Your task to perform on an android device: Open Youtube and go to the subscriptions tab Image 0: 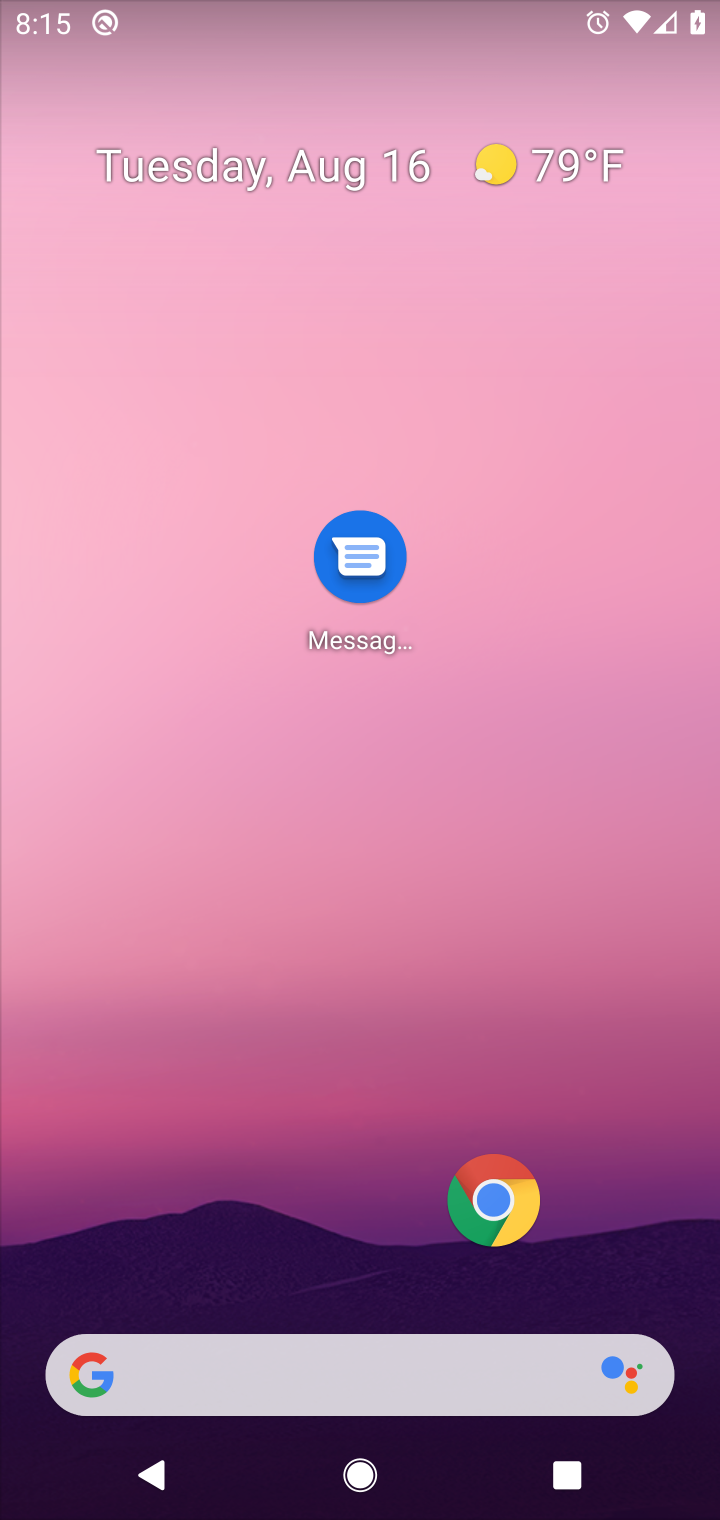
Step 0: press home button
Your task to perform on an android device: Open Youtube and go to the subscriptions tab Image 1: 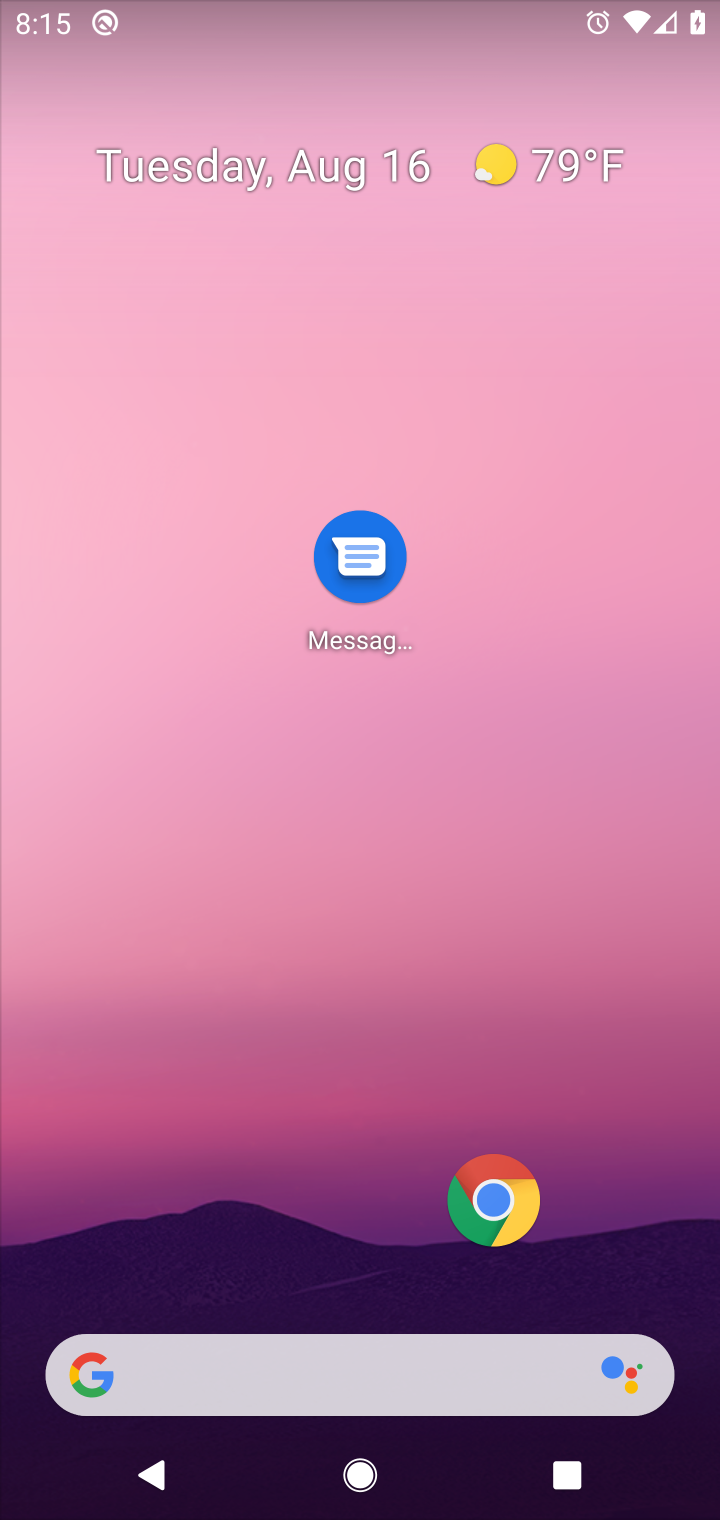
Step 1: drag from (46, 1489) to (293, 599)
Your task to perform on an android device: Open Youtube and go to the subscriptions tab Image 2: 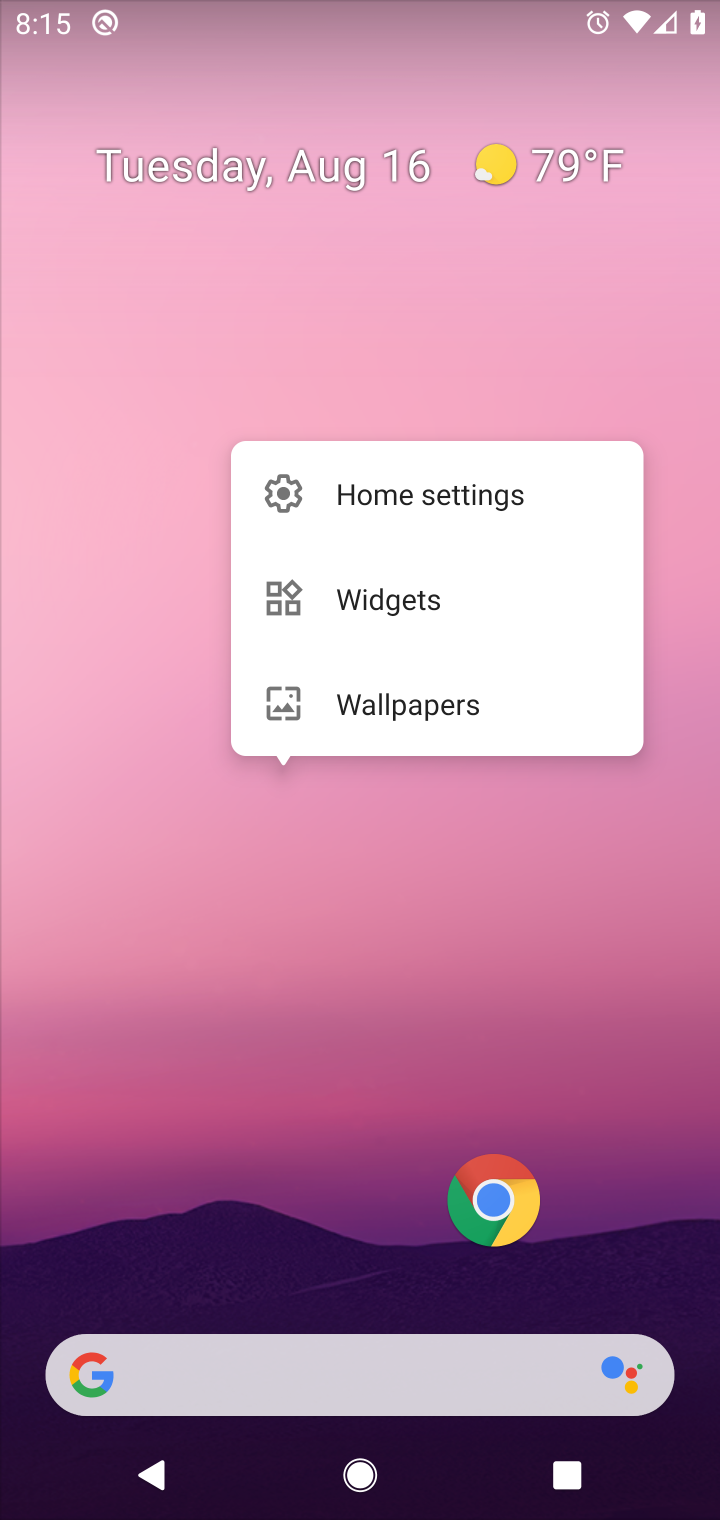
Step 2: drag from (67, 1470) to (156, 604)
Your task to perform on an android device: Open Youtube and go to the subscriptions tab Image 3: 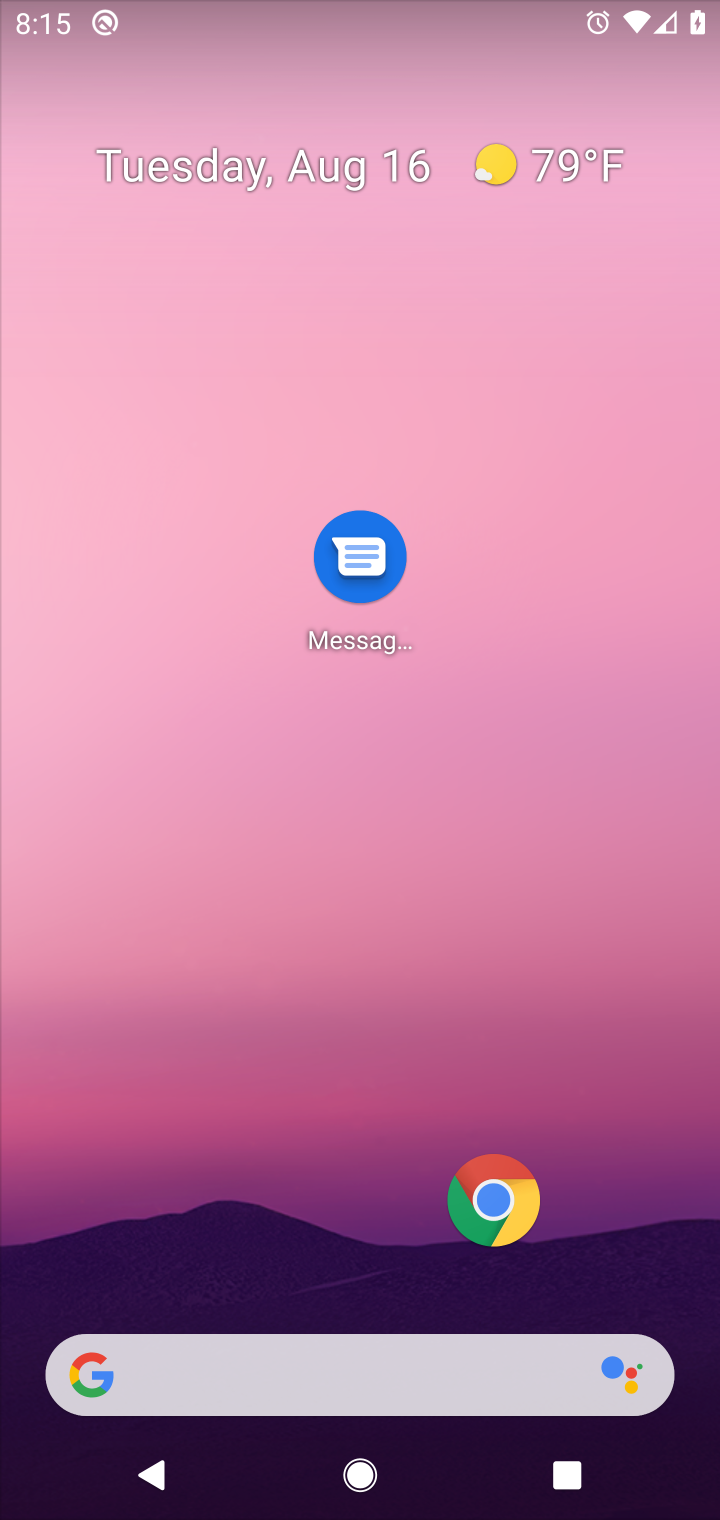
Step 3: drag from (426, 961) to (586, 608)
Your task to perform on an android device: Open Youtube and go to the subscriptions tab Image 4: 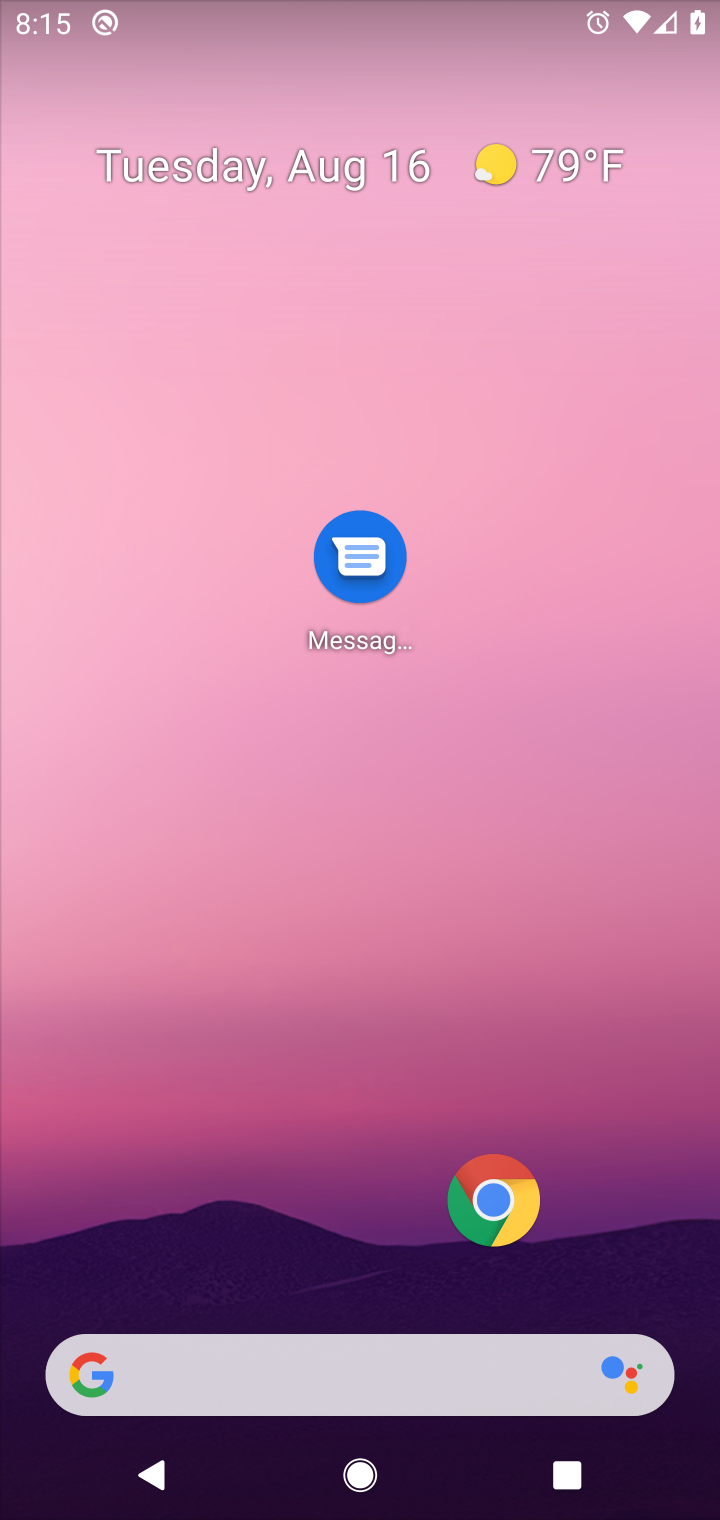
Step 4: drag from (76, 1448) to (230, 424)
Your task to perform on an android device: Open Youtube and go to the subscriptions tab Image 5: 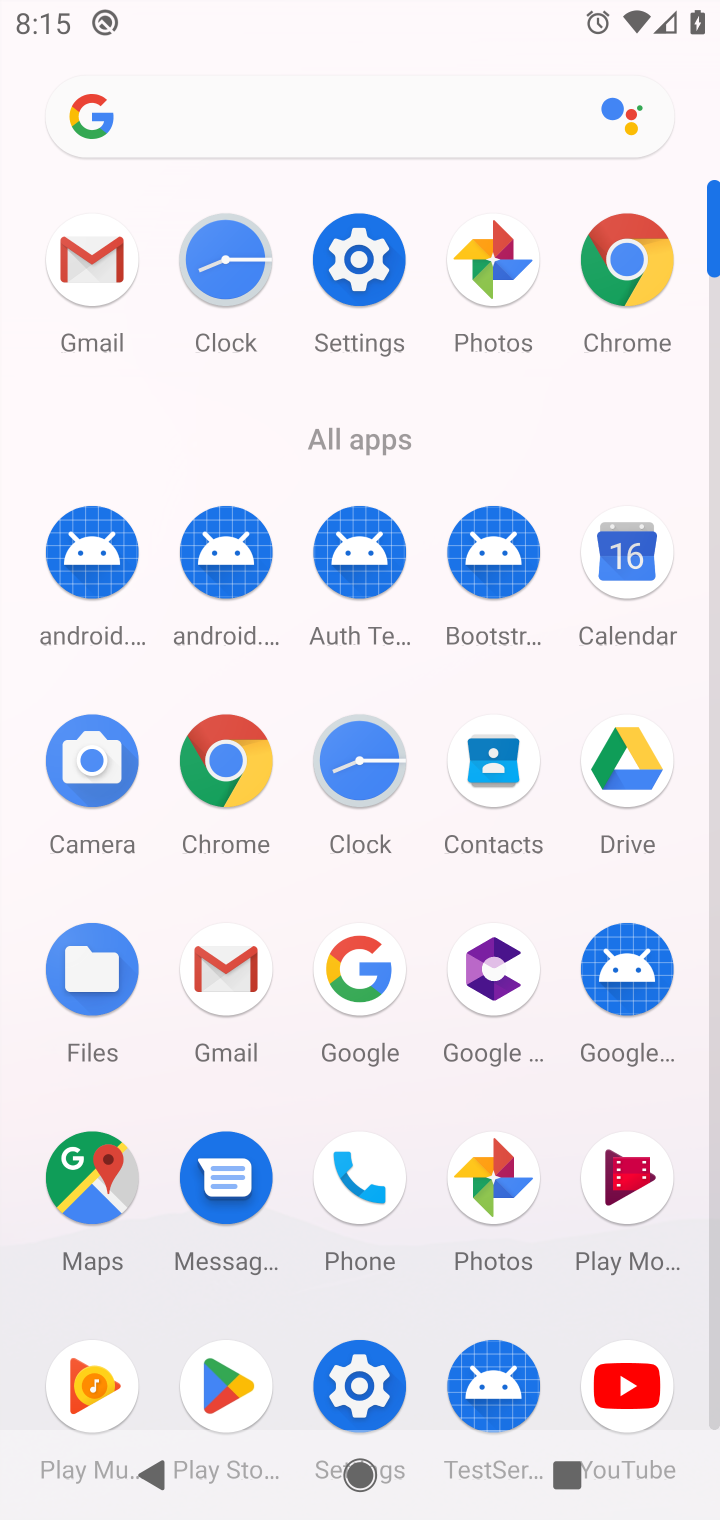
Step 5: click (610, 1371)
Your task to perform on an android device: Open Youtube and go to the subscriptions tab Image 6: 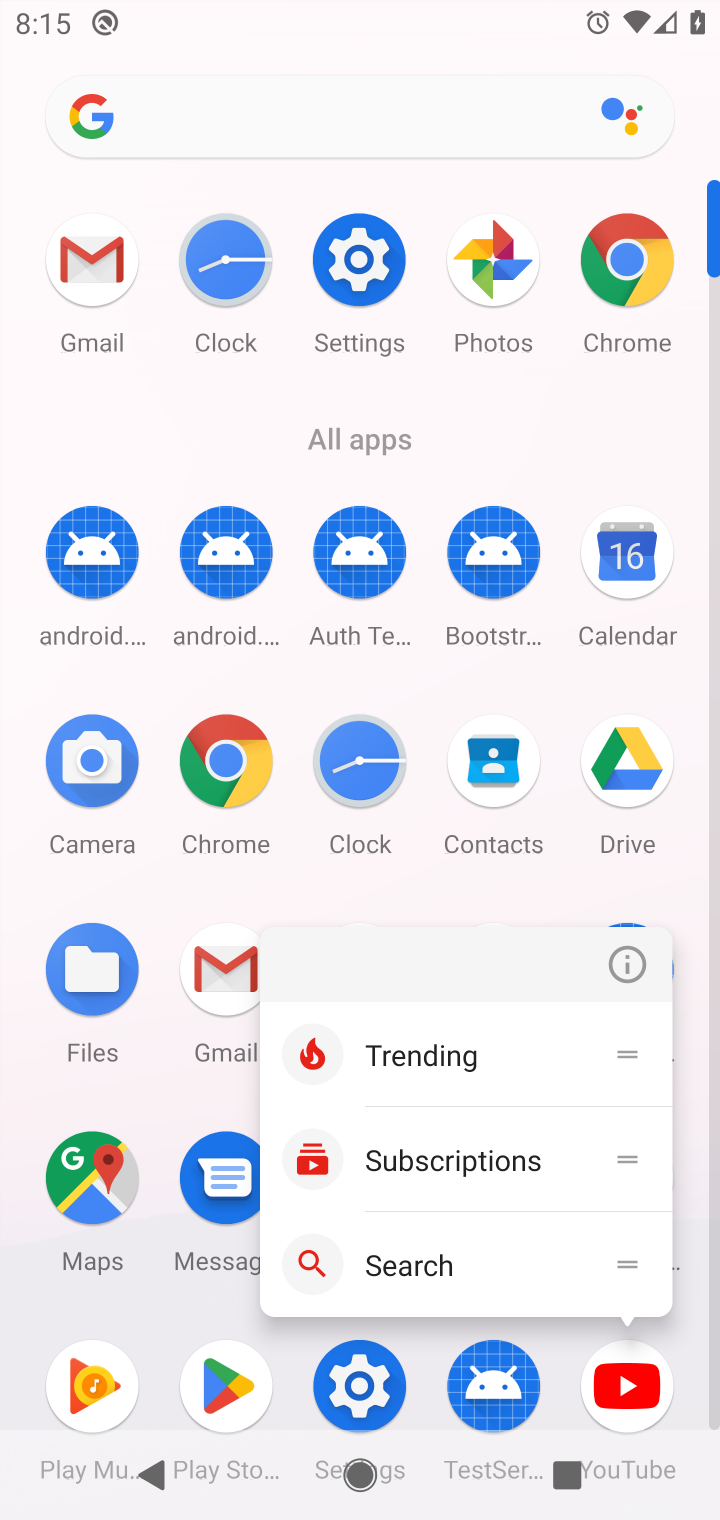
Step 6: click (631, 1385)
Your task to perform on an android device: Open Youtube and go to the subscriptions tab Image 7: 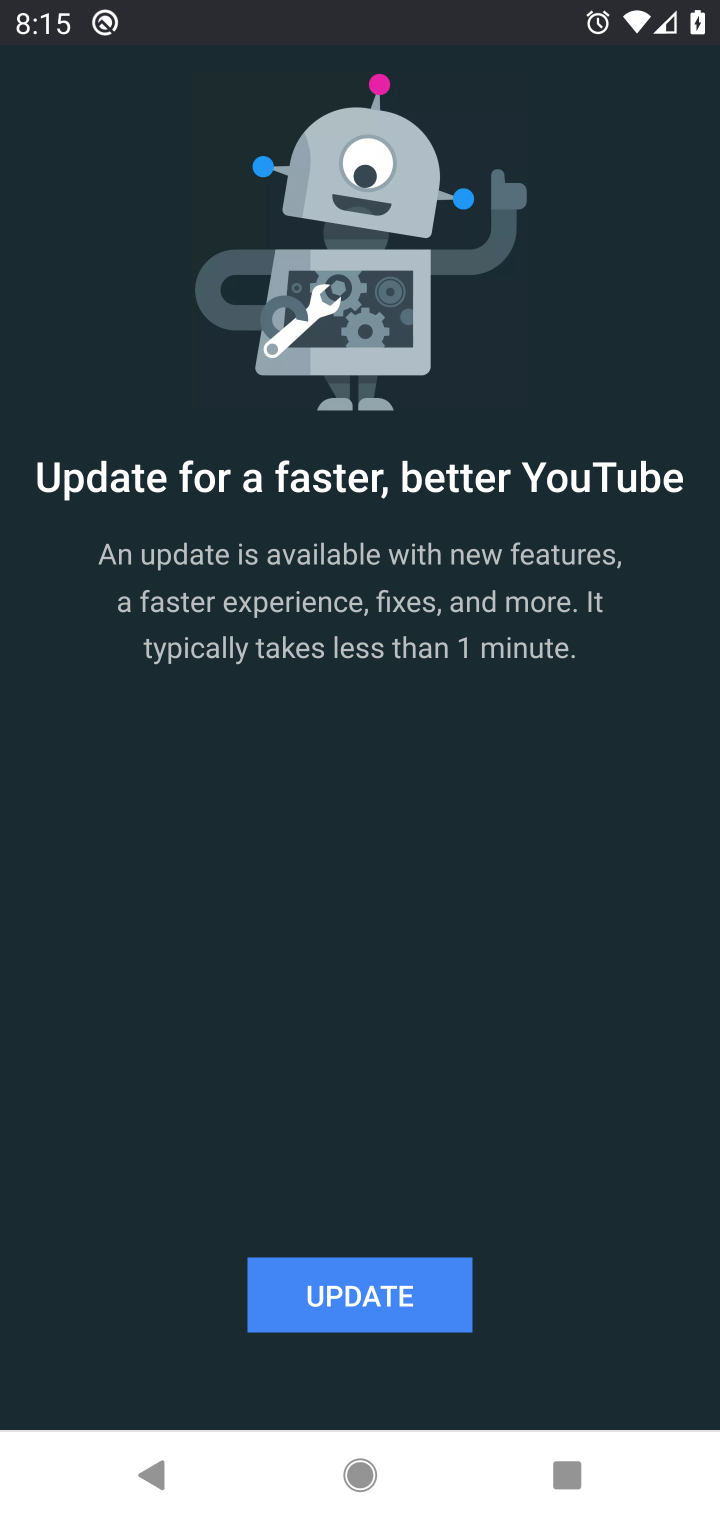
Step 7: click (320, 1304)
Your task to perform on an android device: Open Youtube and go to the subscriptions tab Image 8: 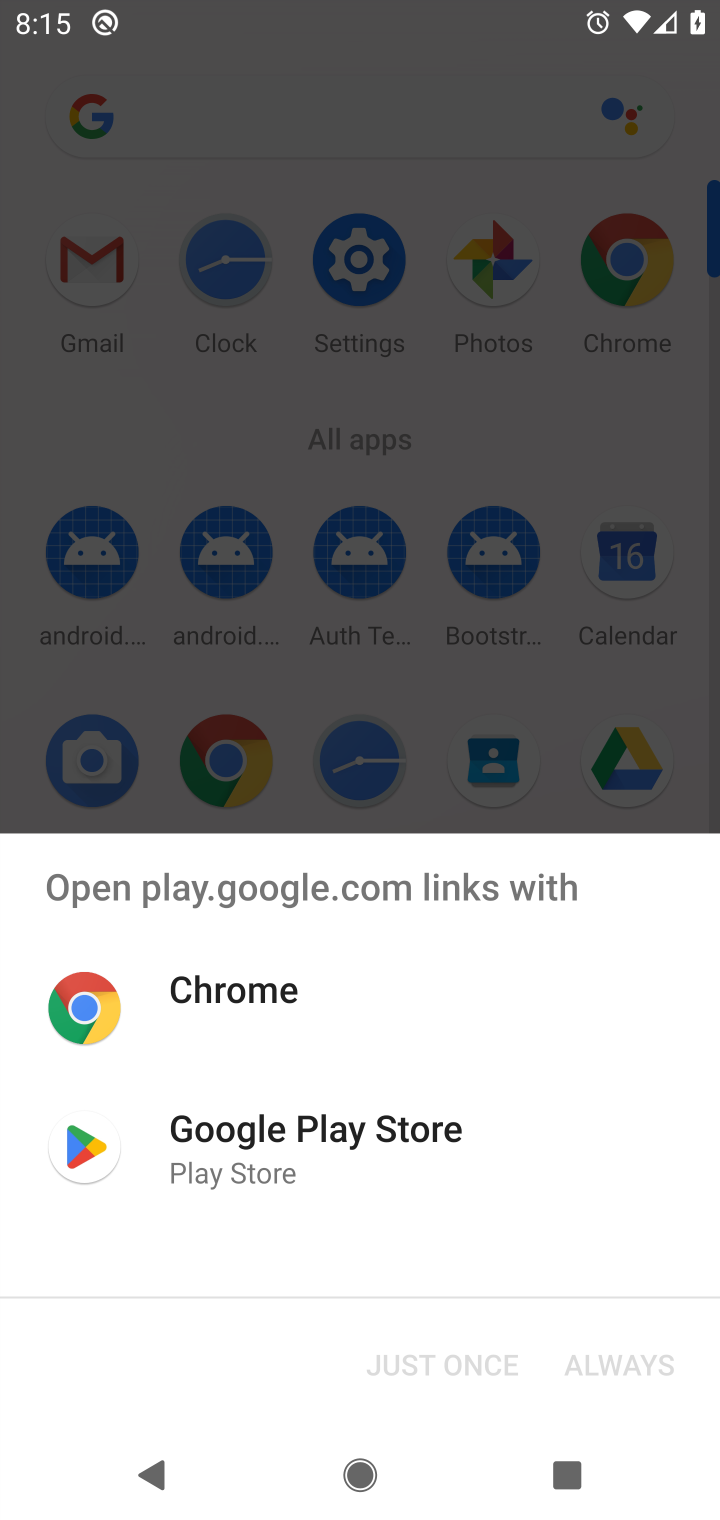
Step 8: click (202, 1122)
Your task to perform on an android device: Open Youtube and go to the subscriptions tab Image 9: 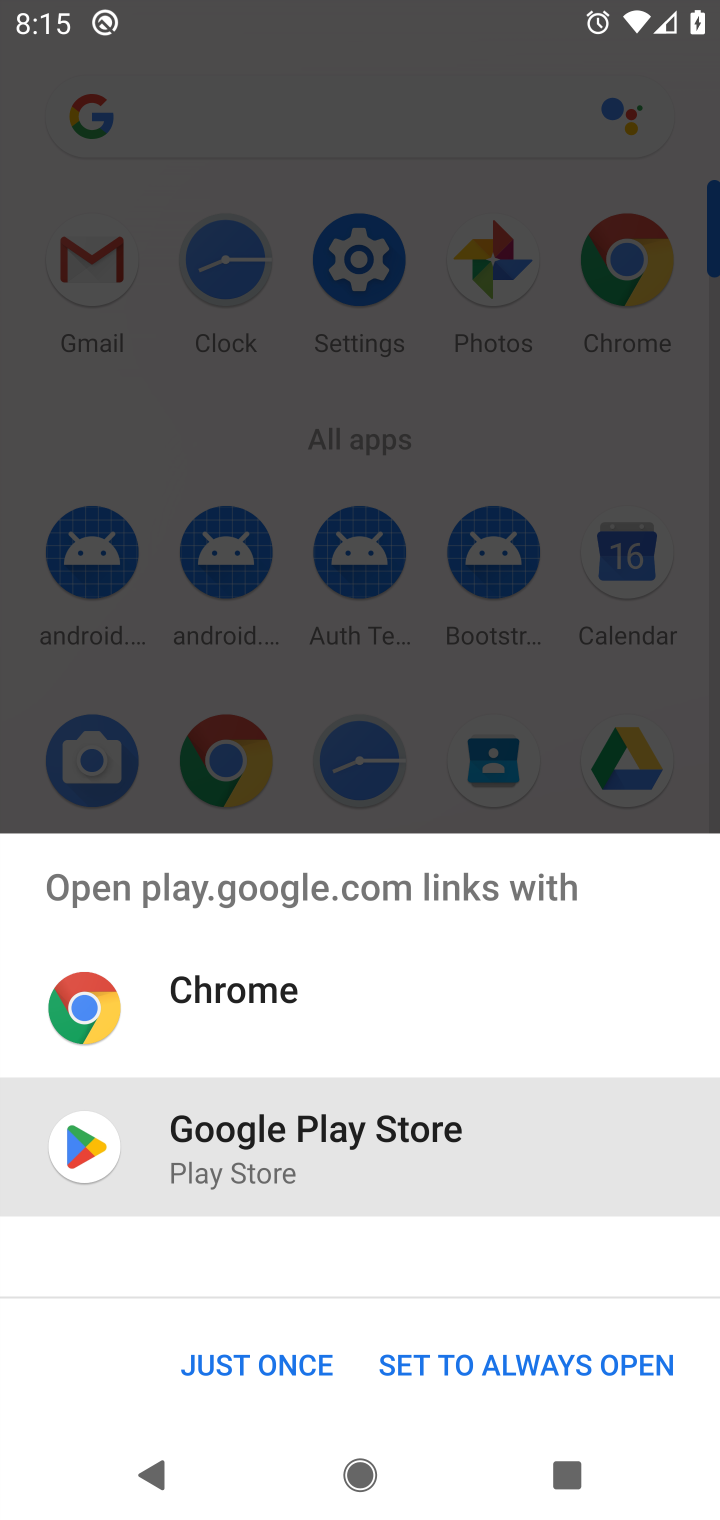
Step 9: click (247, 1350)
Your task to perform on an android device: Open Youtube and go to the subscriptions tab Image 10: 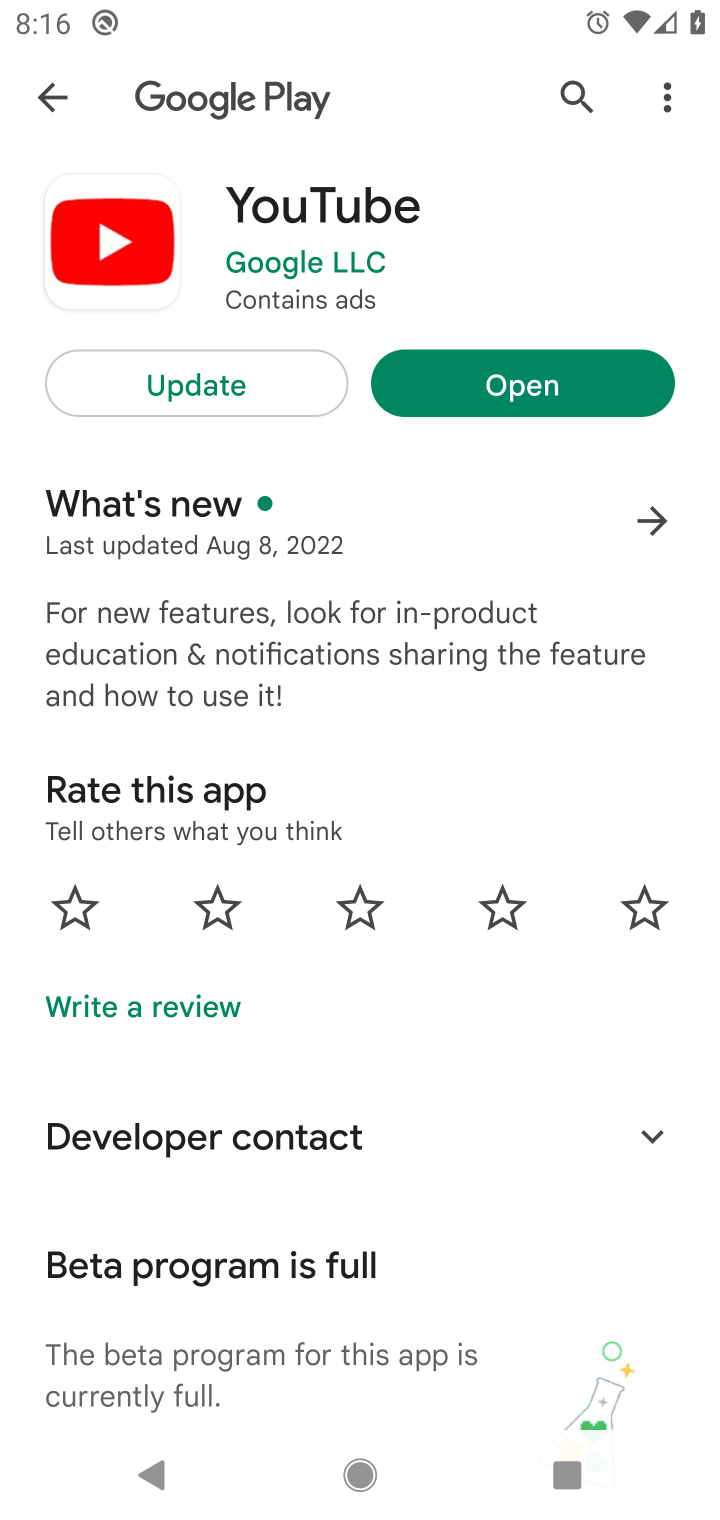
Step 10: click (220, 376)
Your task to perform on an android device: Open Youtube and go to the subscriptions tab Image 11: 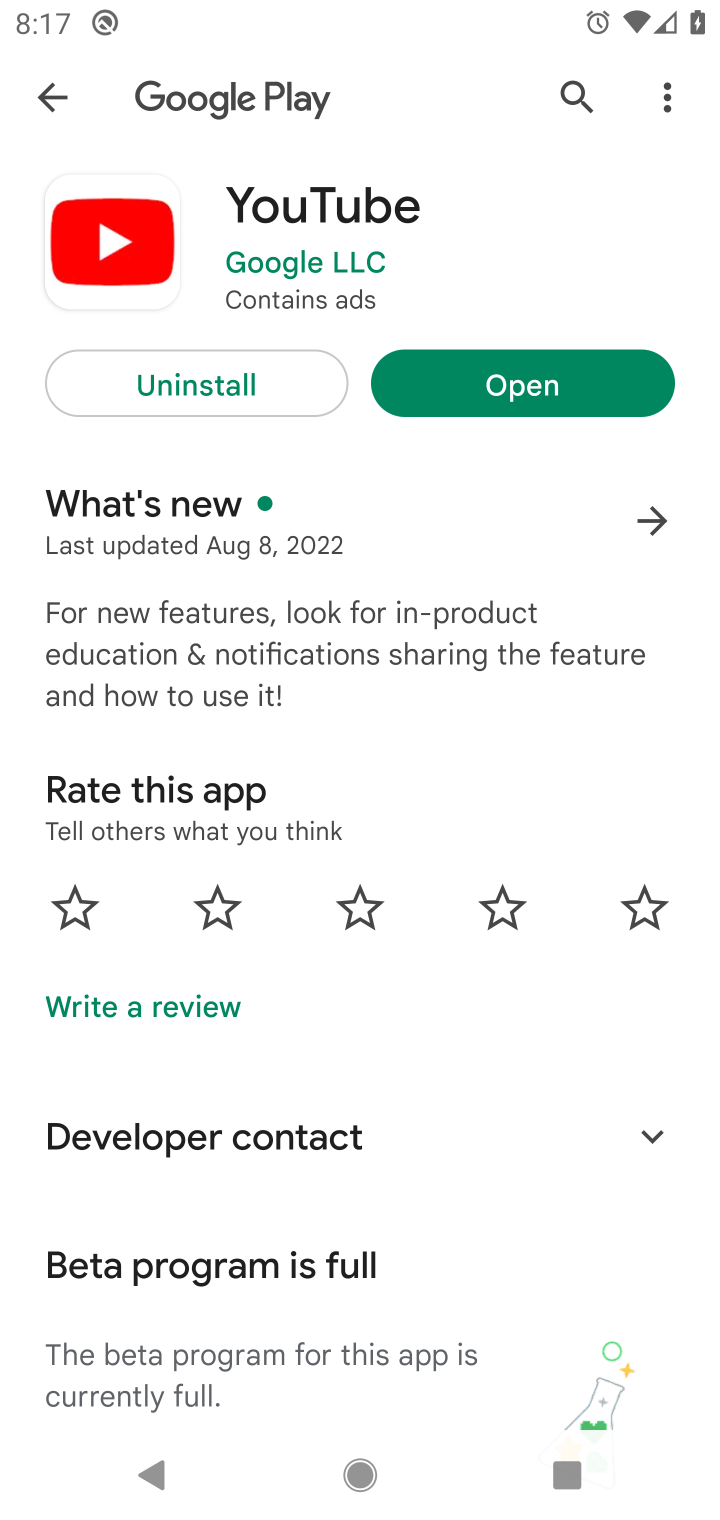
Step 11: click (464, 370)
Your task to perform on an android device: Open Youtube and go to the subscriptions tab Image 12: 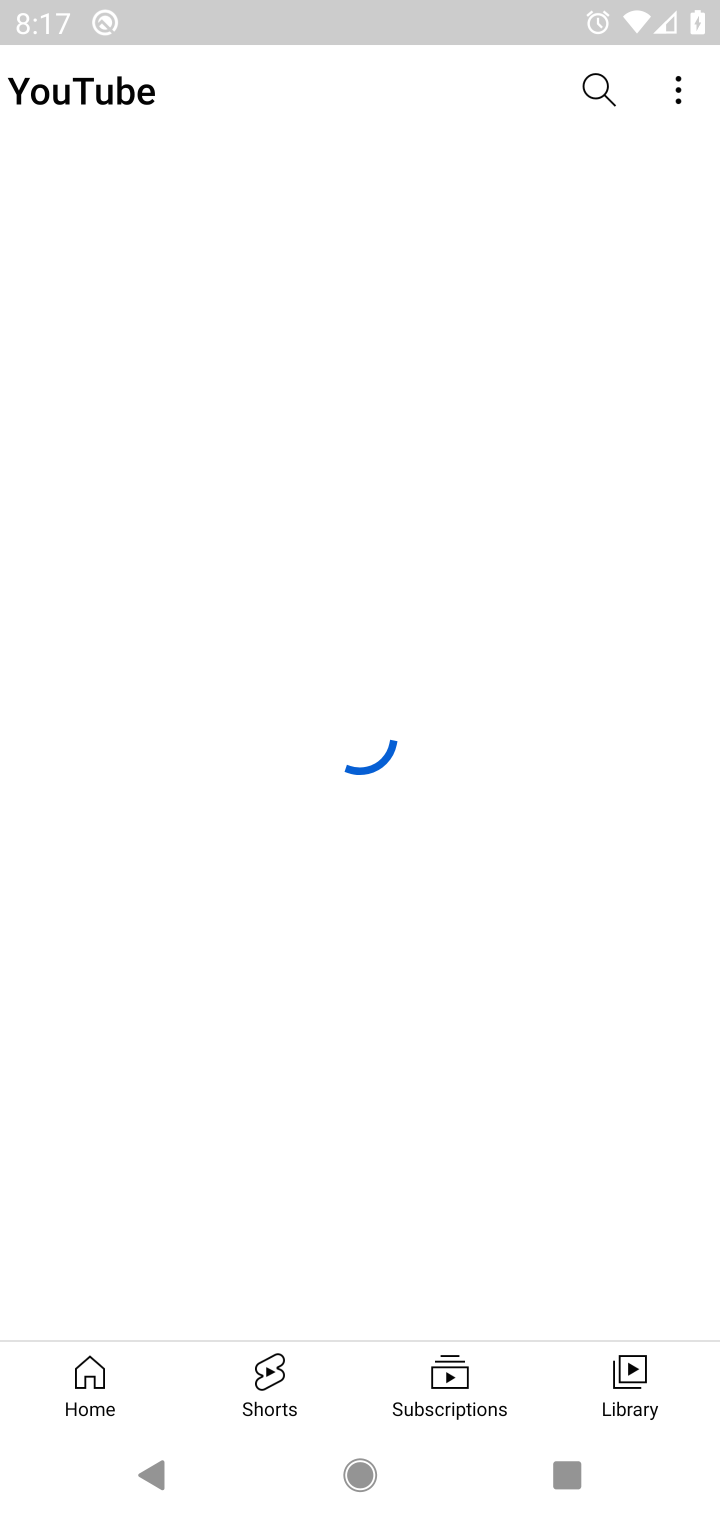
Step 12: click (443, 1398)
Your task to perform on an android device: Open Youtube and go to the subscriptions tab Image 13: 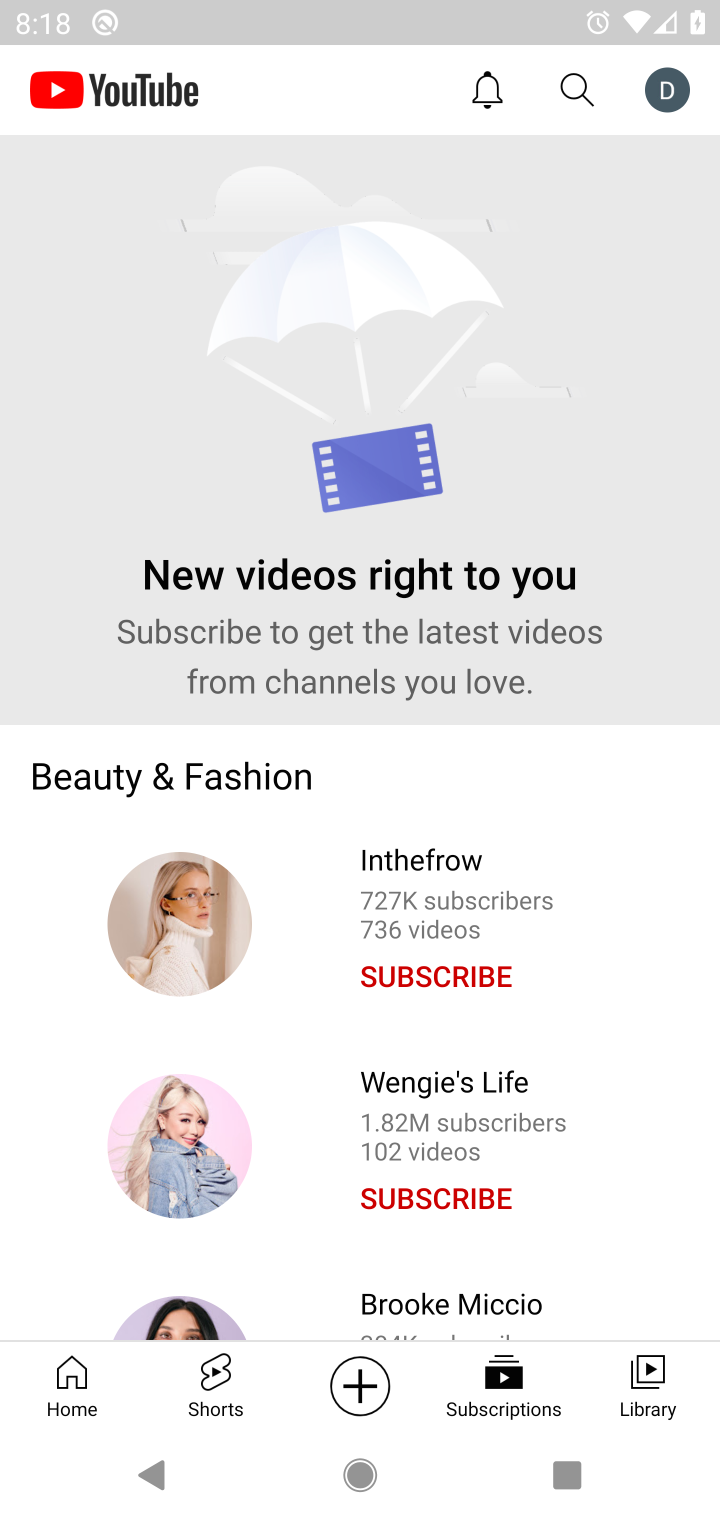
Step 13: task complete